Your task to perform on an android device: Open location settings Image 0: 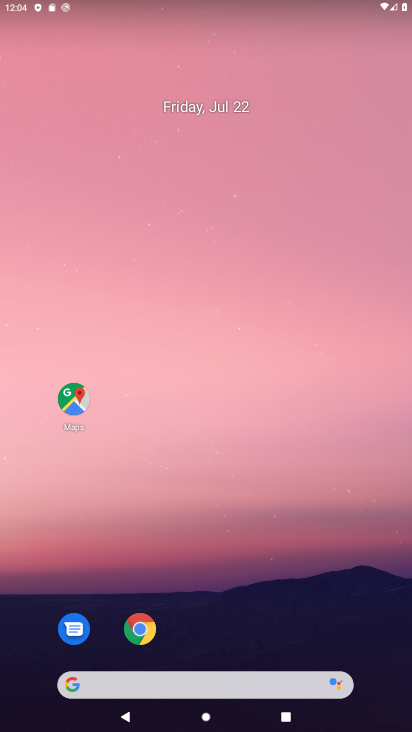
Step 0: drag from (350, 607) to (364, 61)
Your task to perform on an android device: Open location settings Image 1: 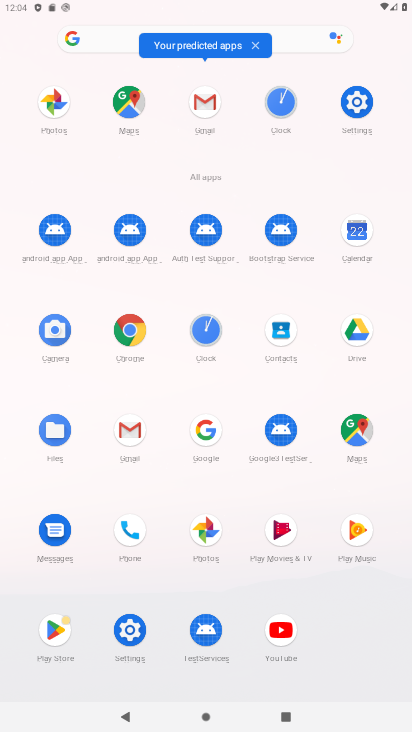
Step 1: click (355, 108)
Your task to perform on an android device: Open location settings Image 2: 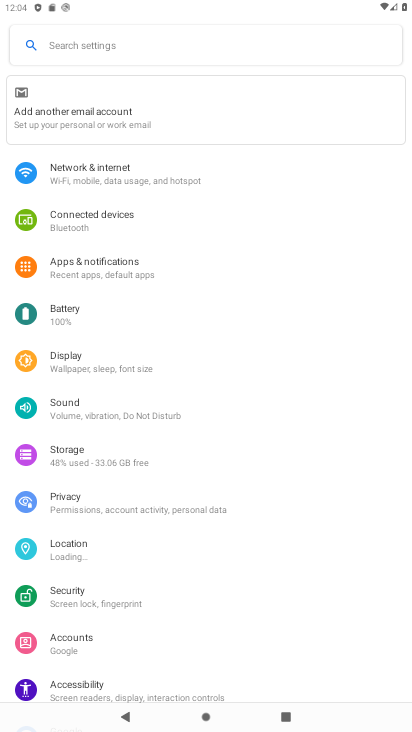
Step 2: drag from (352, 432) to (347, 322)
Your task to perform on an android device: Open location settings Image 3: 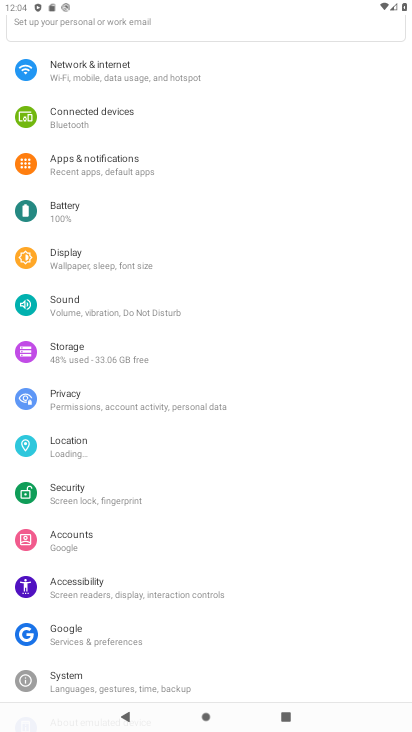
Step 3: drag from (352, 429) to (375, 325)
Your task to perform on an android device: Open location settings Image 4: 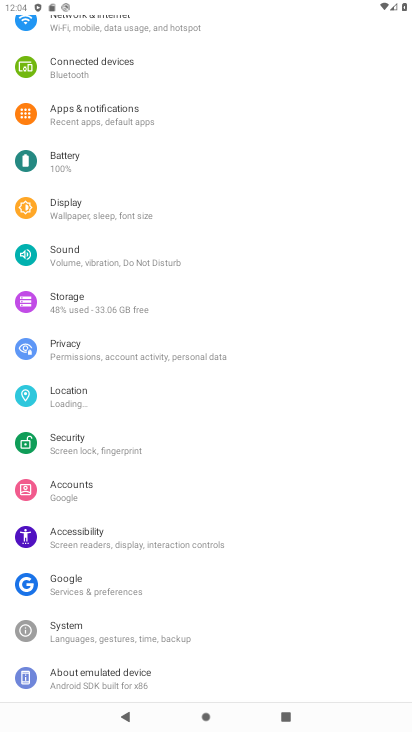
Step 4: drag from (329, 457) to (332, 366)
Your task to perform on an android device: Open location settings Image 5: 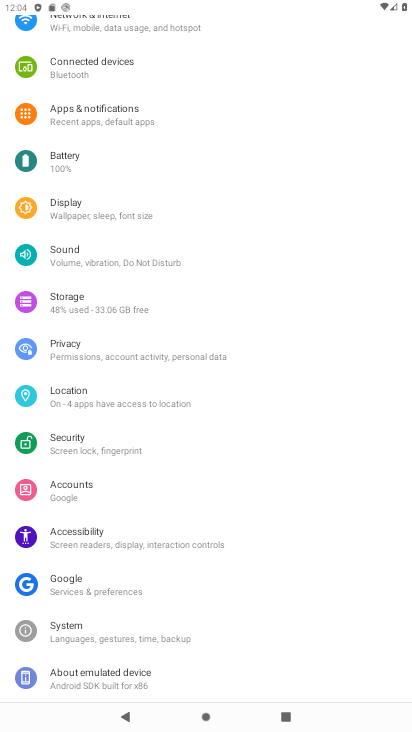
Step 5: drag from (342, 229) to (329, 337)
Your task to perform on an android device: Open location settings Image 6: 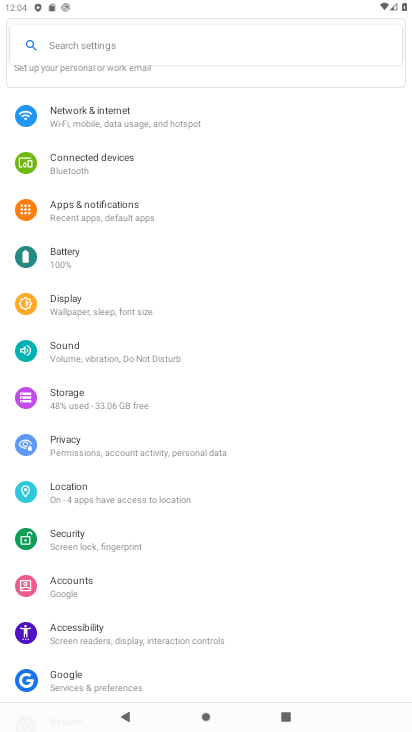
Step 6: click (279, 490)
Your task to perform on an android device: Open location settings Image 7: 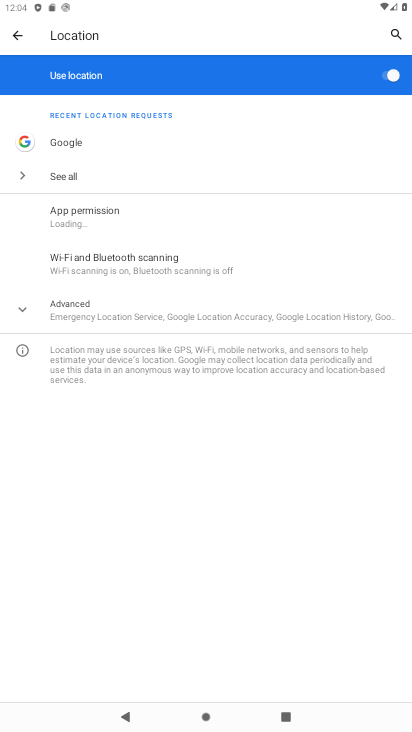
Step 7: click (287, 298)
Your task to perform on an android device: Open location settings Image 8: 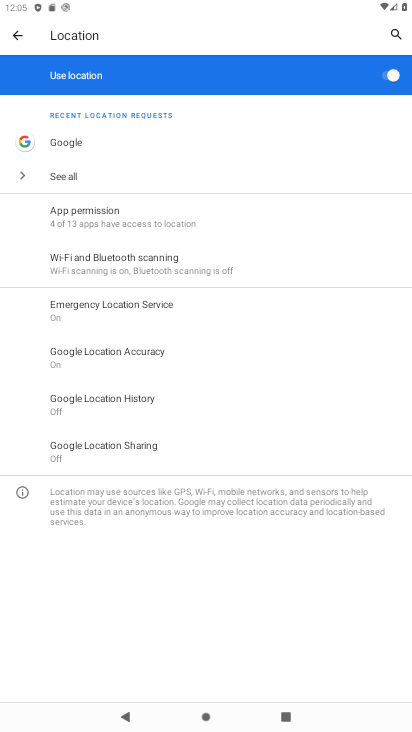
Step 8: task complete